Your task to perform on an android device: Open Wikipedia Image 0: 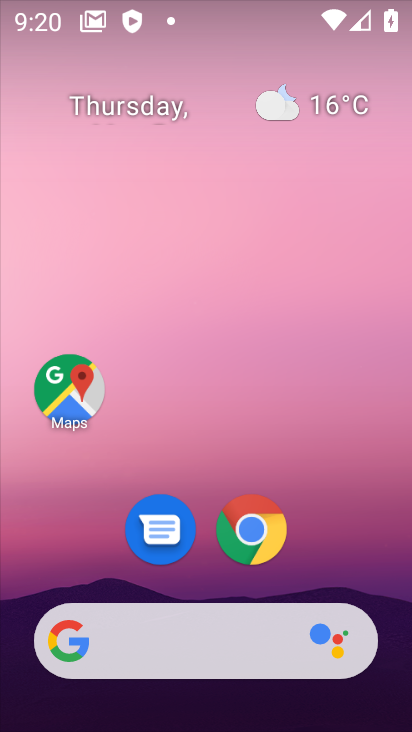
Step 0: drag from (386, 461) to (386, 86)
Your task to perform on an android device: Open Wikipedia Image 1: 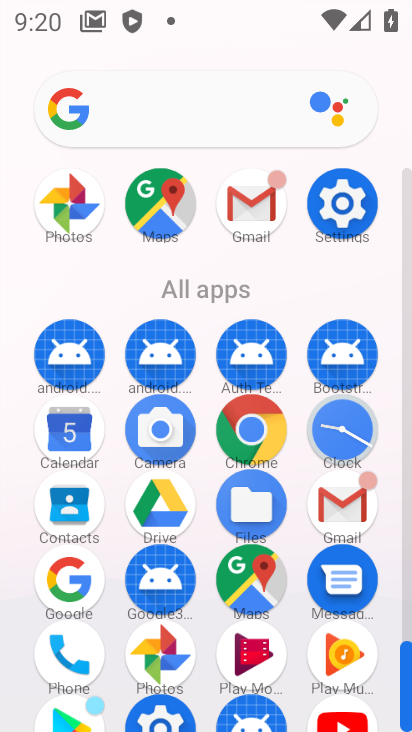
Step 1: click (271, 420)
Your task to perform on an android device: Open Wikipedia Image 2: 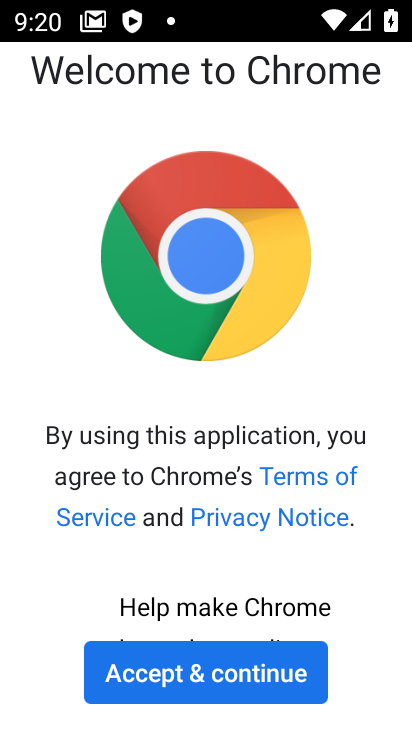
Step 2: click (278, 682)
Your task to perform on an android device: Open Wikipedia Image 3: 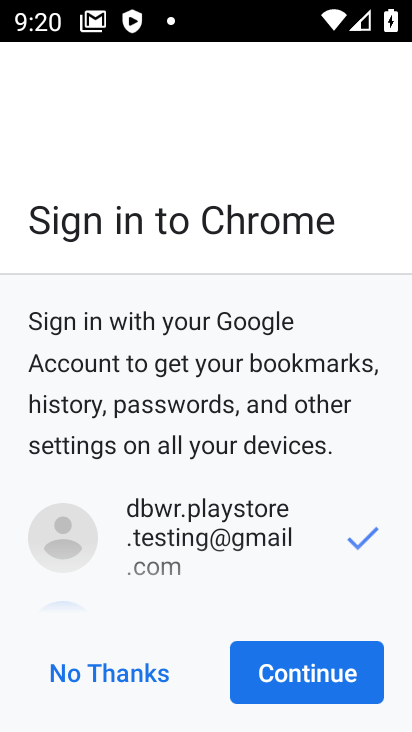
Step 3: click (312, 680)
Your task to perform on an android device: Open Wikipedia Image 4: 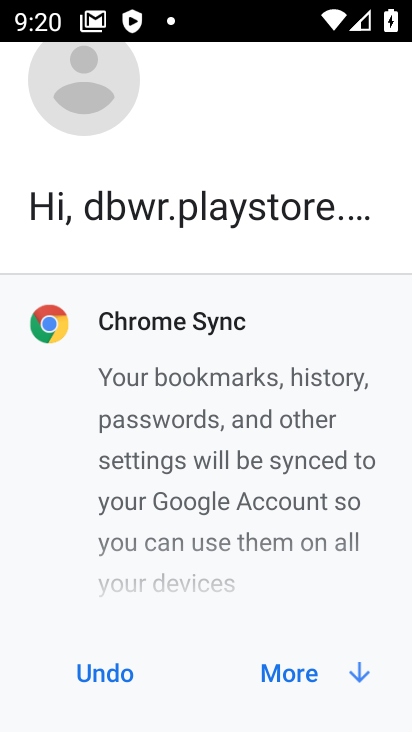
Step 4: click (312, 680)
Your task to perform on an android device: Open Wikipedia Image 5: 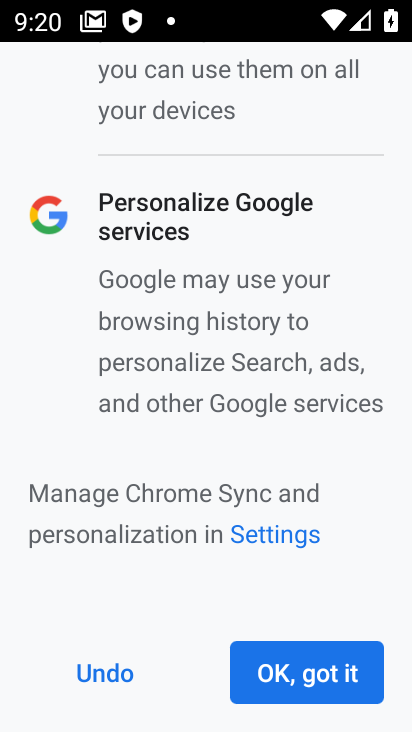
Step 5: click (312, 680)
Your task to perform on an android device: Open Wikipedia Image 6: 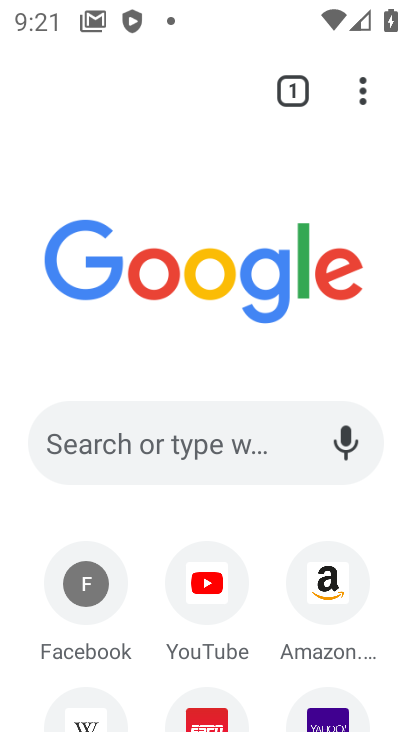
Step 6: click (239, 438)
Your task to perform on an android device: Open Wikipedia Image 7: 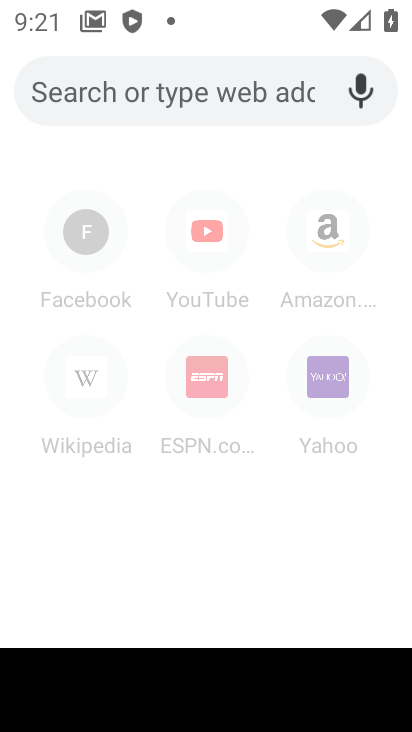
Step 7: type "wikipedia"
Your task to perform on an android device: Open Wikipedia Image 8: 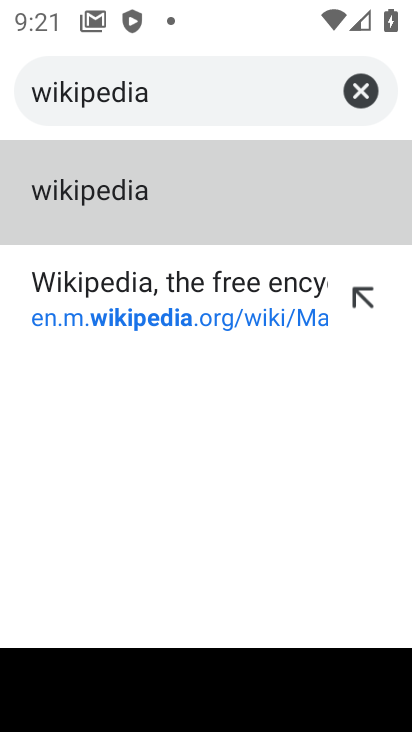
Step 8: click (140, 187)
Your task to perform on an android device: Open Wikipedia Image 9: 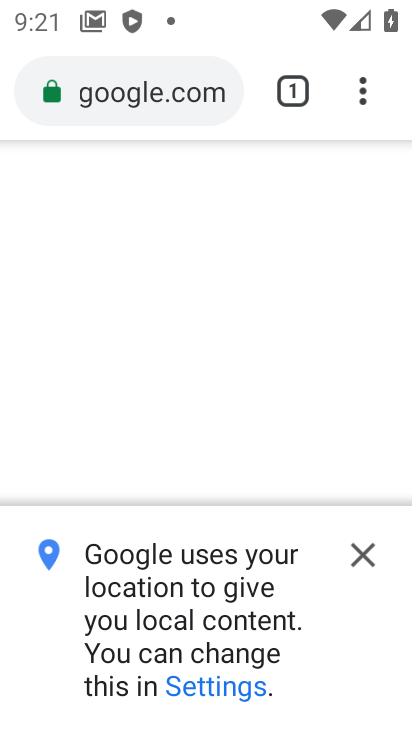
Step 9: click (368, 558)
Your task to perform on an android device: Open Wikipedia Image 10: 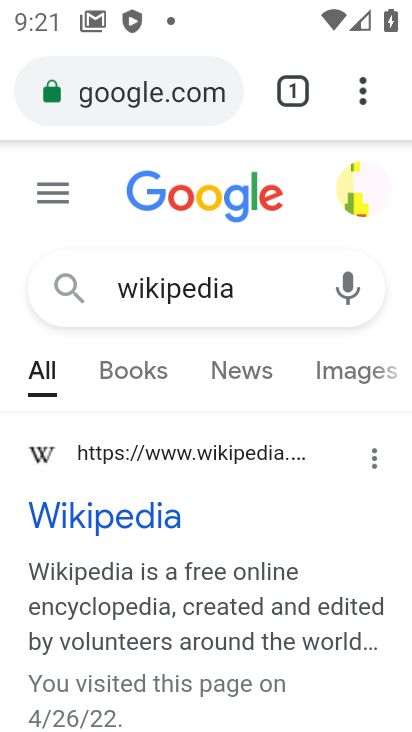
Step 10: task complete